Your task to perform on an android device: Go to network settings Image 0: 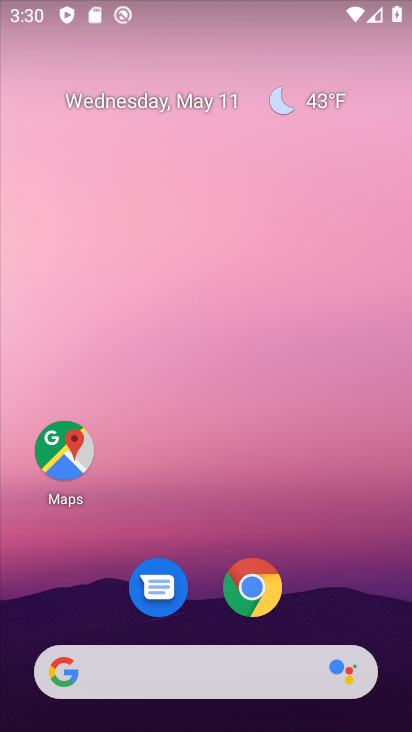
Step 0: drag from (295, 573) to (391, 62)
Your task to perform on an android device: Go to network settings Image 1: 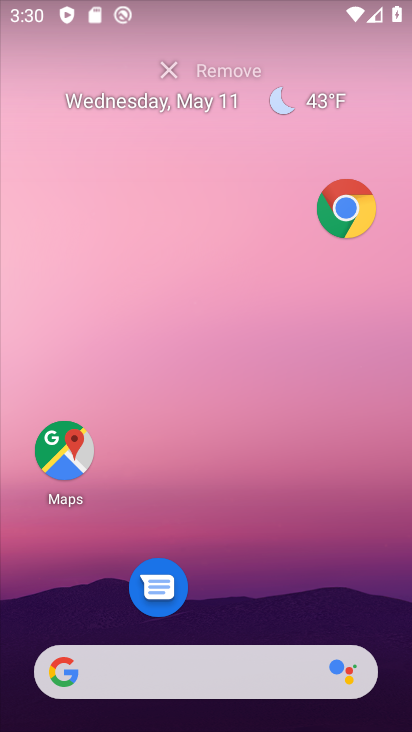
Step 1: click (309, 156)
Your task to perform on an android device: Go to network settings Image 2: 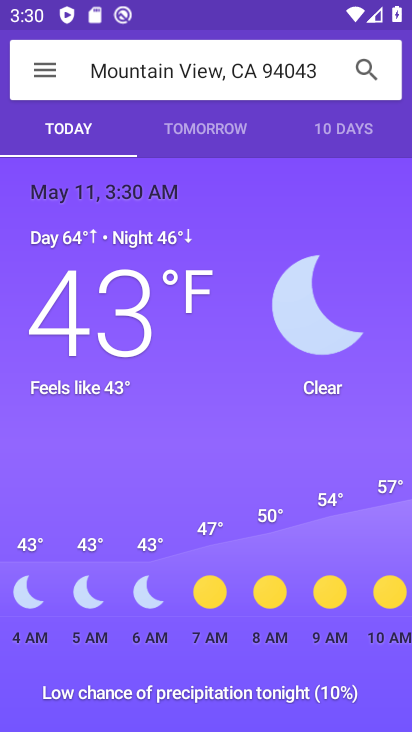
Step 2: press home button
Your task to perform on an android device: Go to network settings Image 3: 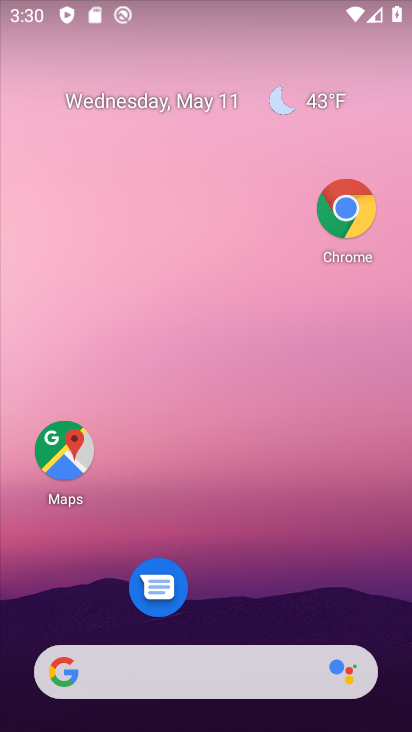
Step 3: drag from (215, 618) to (150, 194)
Your task to perform on an android device: Go to network settings Image 4: 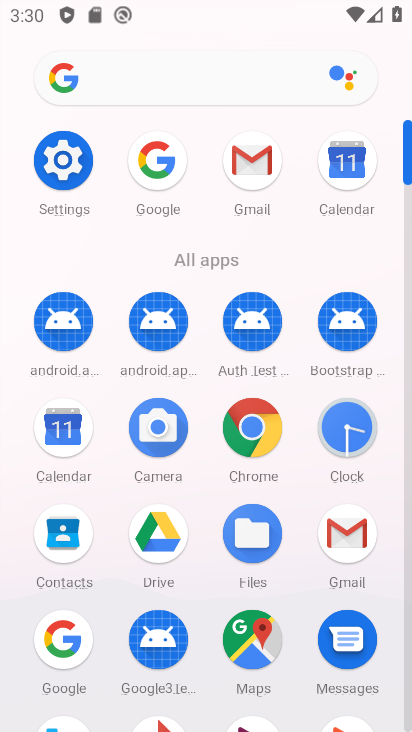
Step 4: click (50, 168)
Your task to perform on an android device: Go to network settings Image 5: 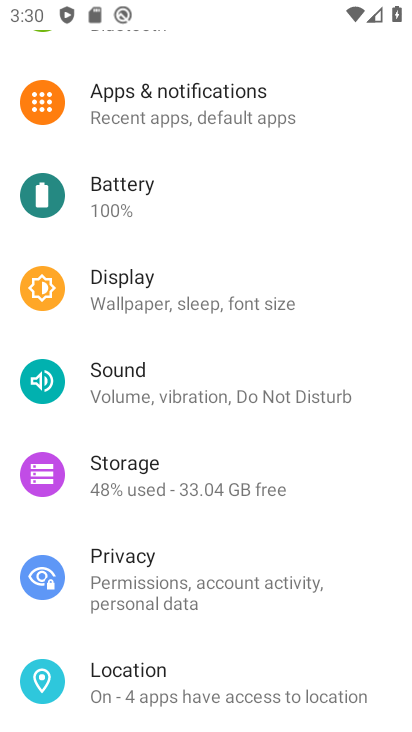
Step 5: drag from (179, 179) to (206, 616)
Your task to perform on an android device: Go to network settings Image 6: 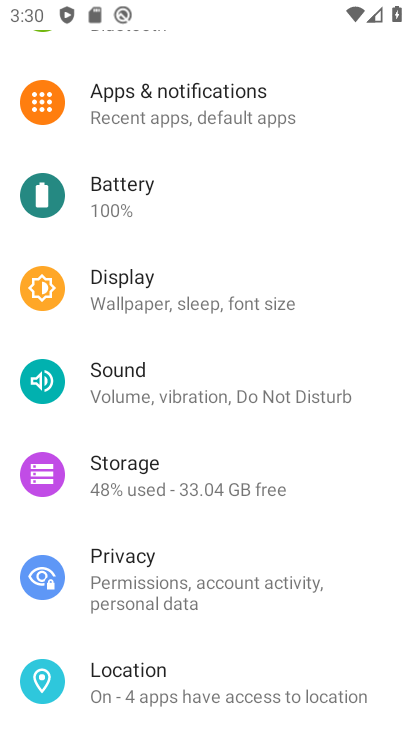
Step 6: drag from (122, 66) to (193, 646)
Your task to perform on an android device: Go to network settings Image 7: 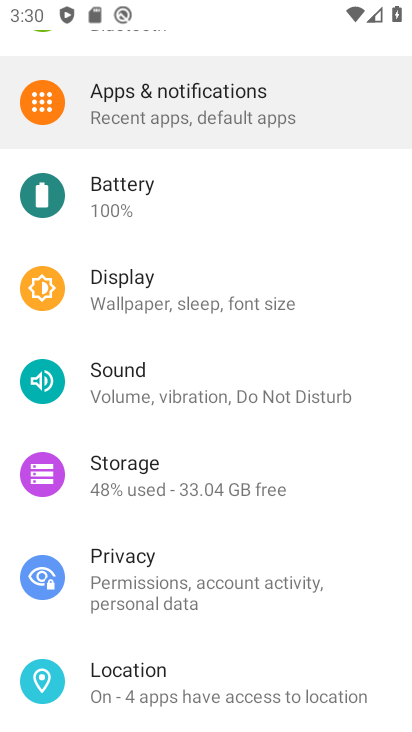
Step 7: drag from (194, 624) to (162, 231)
Your task to perform on an android device: Go to network settings Image 8: 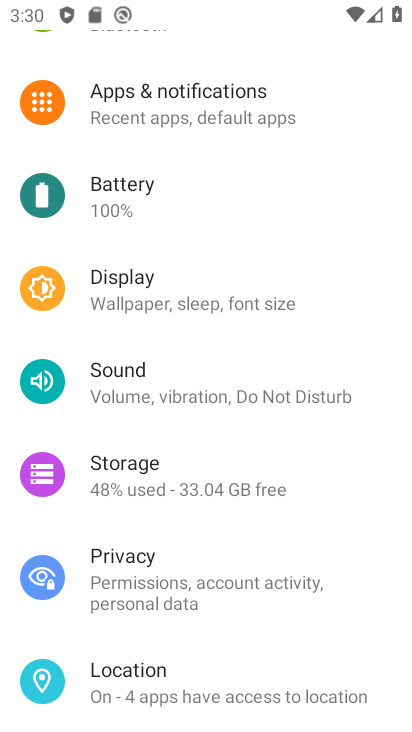
Step 8: drag from (319, 656) to (256, 272)
Your task to perform on an android device: Go to network settings Image 9: 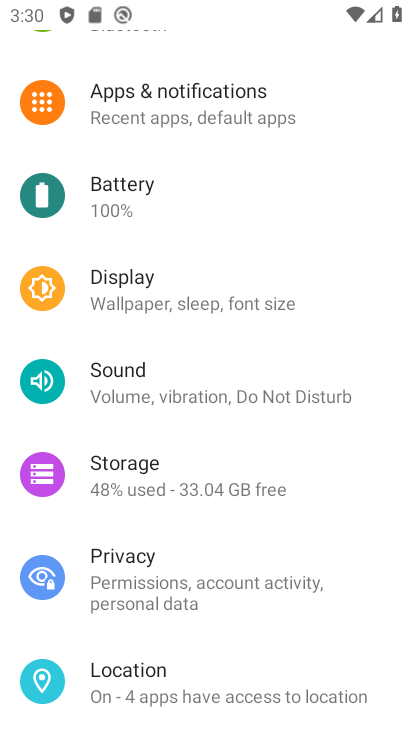
Step 9: drag from (242, 181) to (250, 658)
Your task to perform on an android device: Go to network settings Image 10: 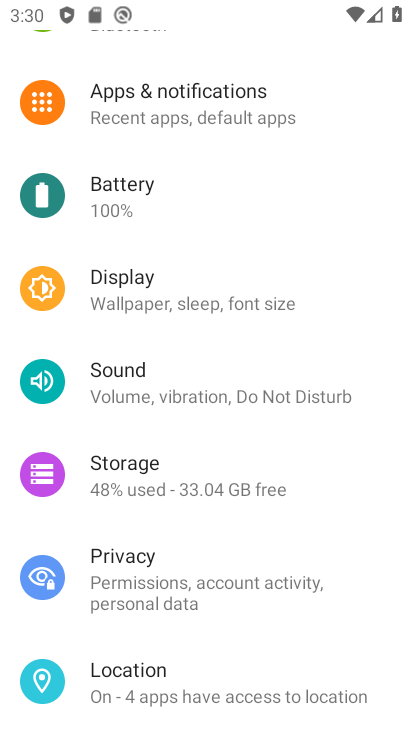
Step 10: click (263, 517)
Your task to perform on an android device: Go to network settings Image 11: 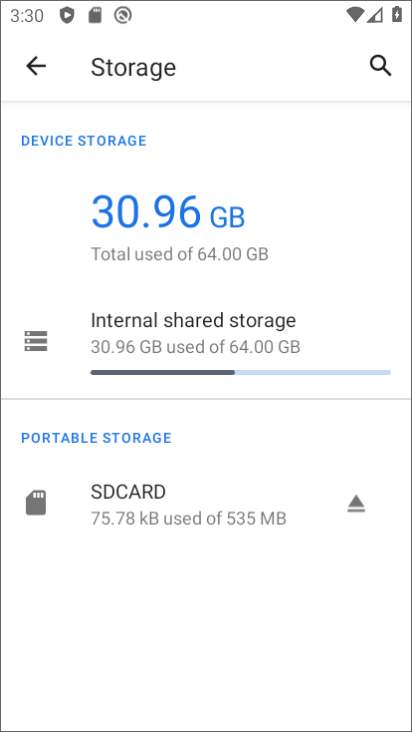
Step 11: drag from (217, 58) to (271, 531)
Your task to perform on an android device: Go to network settings Image 12: 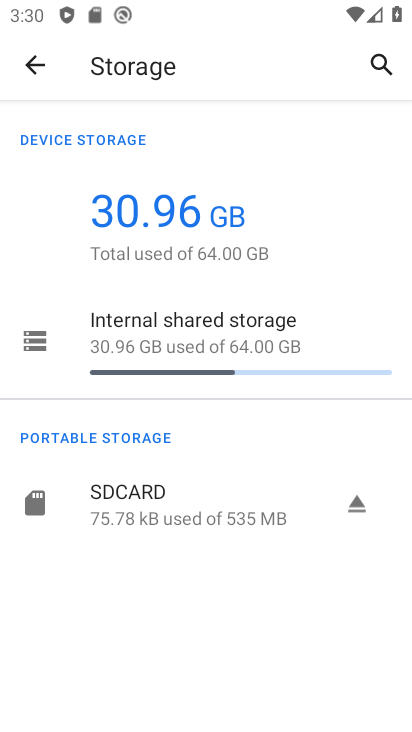
Step 12: click (35, 53)
Your task to perform on an android device: Go to network settings Image 13: 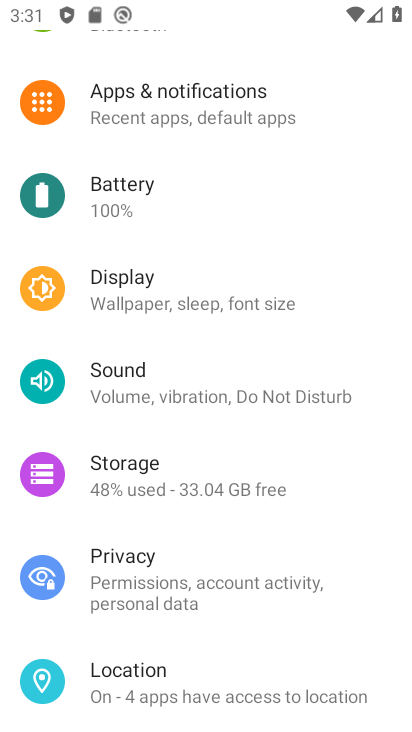
Step 13: drag from (125, 110) to (155, 595)
Your task to perform on an android device: Go to network settings Image 14: 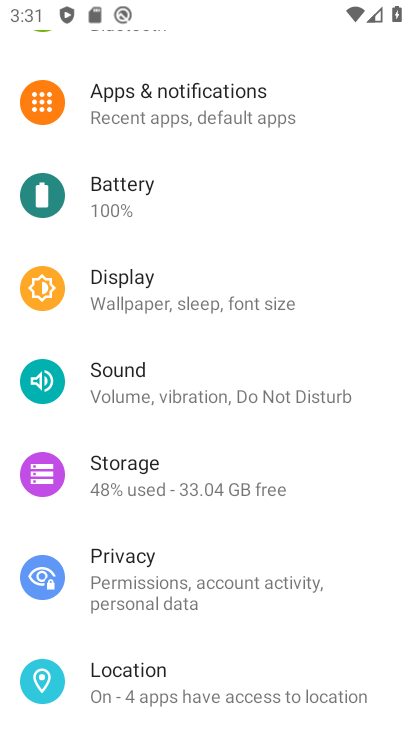
Step 14: drag from (234, 554) to (178, 170)
Your task to perform on an android device: Go to network settings Image 15: 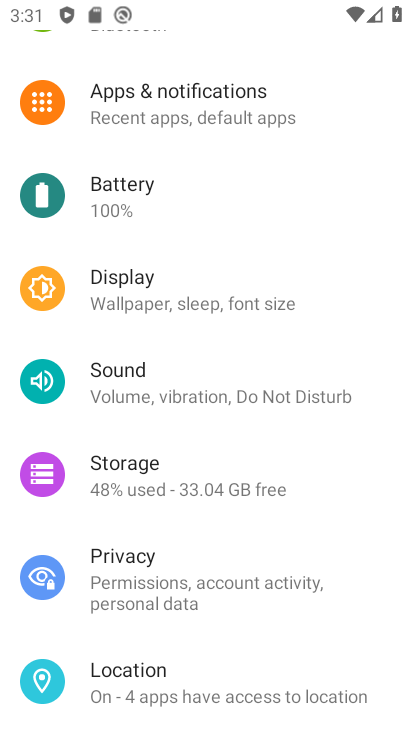
Step 15: drag from (308, 673) to (251, 247)
Your task to perform on an android device: Go to network settings Image 16: 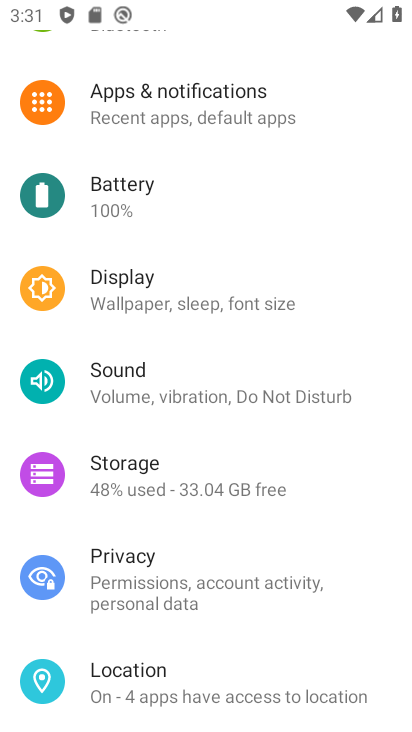
Step 16: drag from (325, 635) to (343, 186)
Your task to perform on an android device: Go to network settings Image 17: 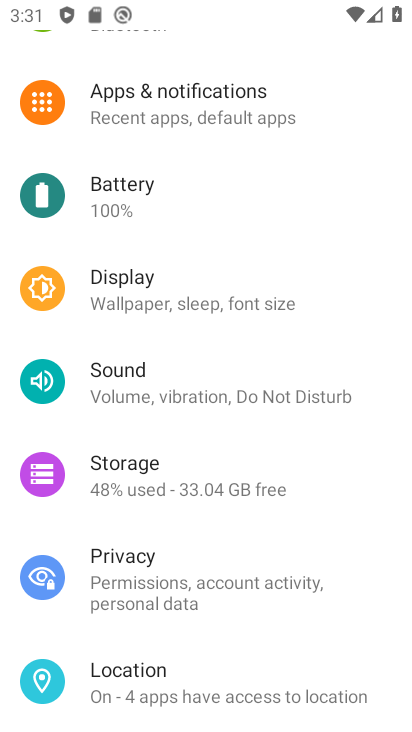
Step 17: press back button
Your task to perform on an android device: Go to network settings Image 18: 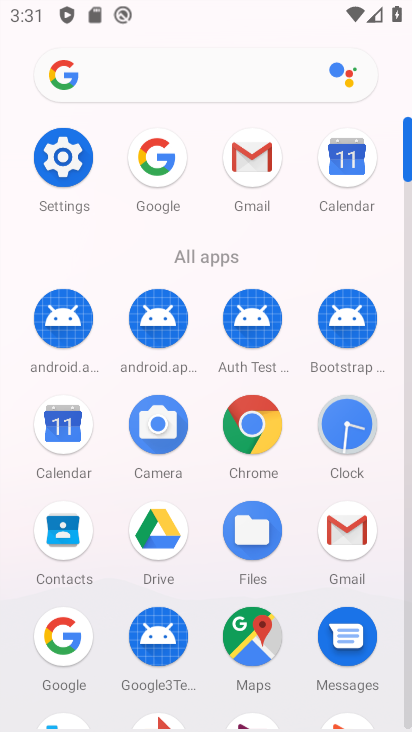
Step 18: press back button
Your task to perform on an android device: Go to network settings Image 19: 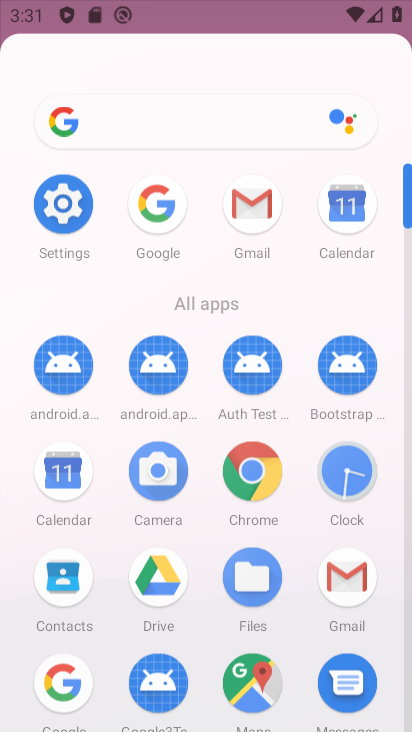
Step 19: press back button
Your task to perform on an android device: Go to network settings Image 20: 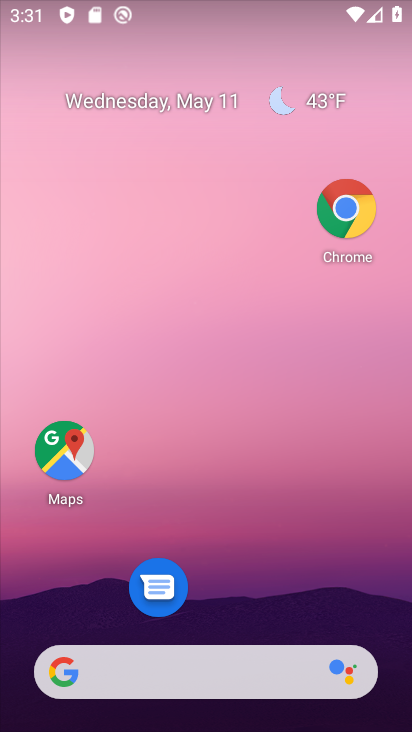
Step 20: drag from (162, 15) to (177, 622)
Your task to perform on an android device: Go to network settings Image 21: 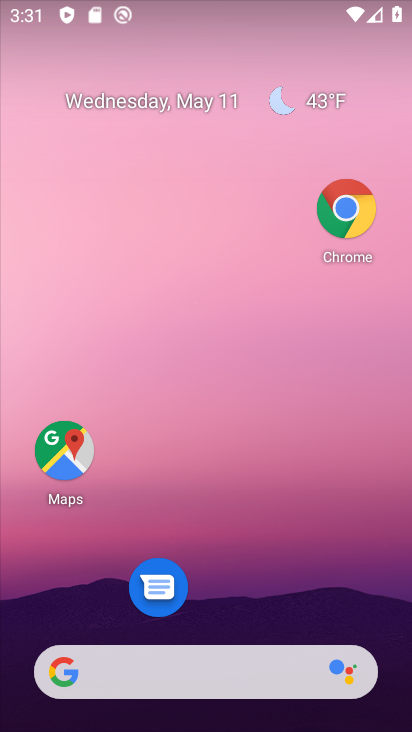
Step 21: drag from (261, 612) to (231, 81)
Your task to perform on an android device: Go to network settings Image 22: 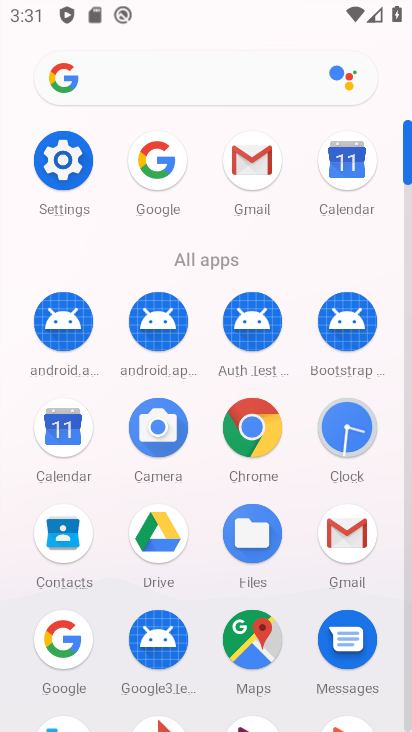
Step 22: click (68, 159)
Your task to perform on an android device: Go to network settings Image 23: 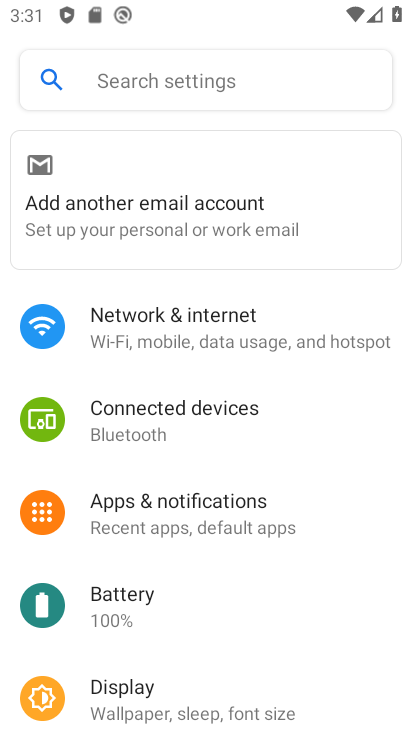
Step 23: click (154, 339)
Your task to perform on an android device: Go to network settings Image 24: 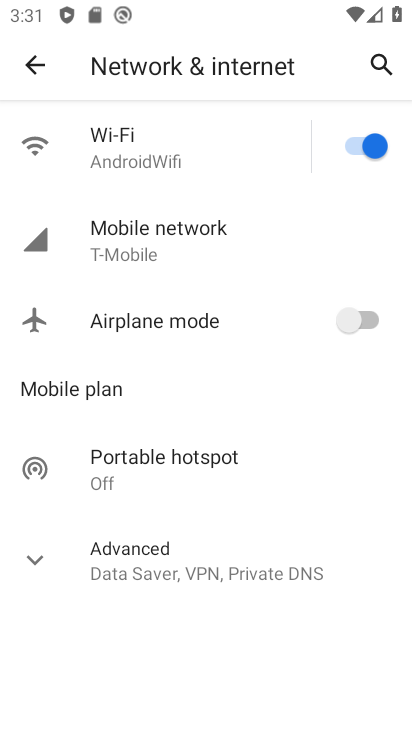
Step 24: task complete